Your task to perform on an android device: What's the weather today? Image 0: 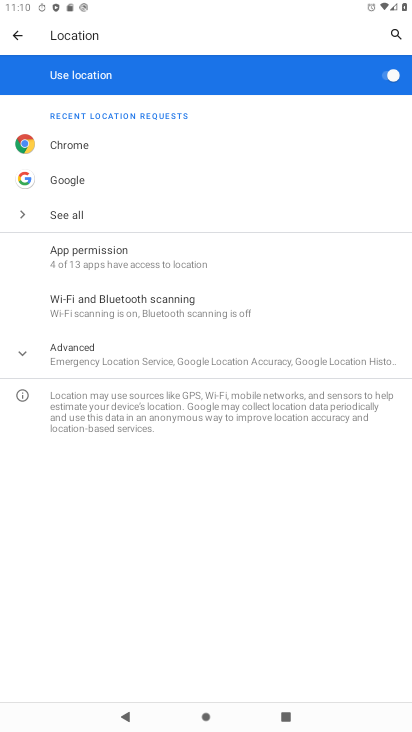
Step 0: press home button
Your task to perform on an android device: What's the weather today? Image 1: 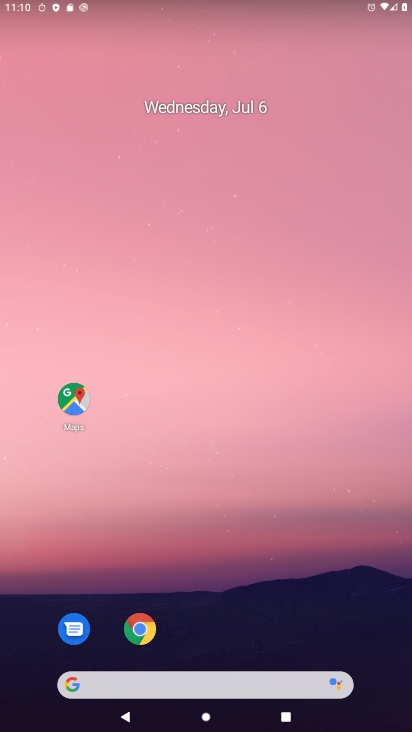
Step 1: drag from (195, 628) to (267, 177)
Your task to perform on an android device: What's the weather today? Image 2: 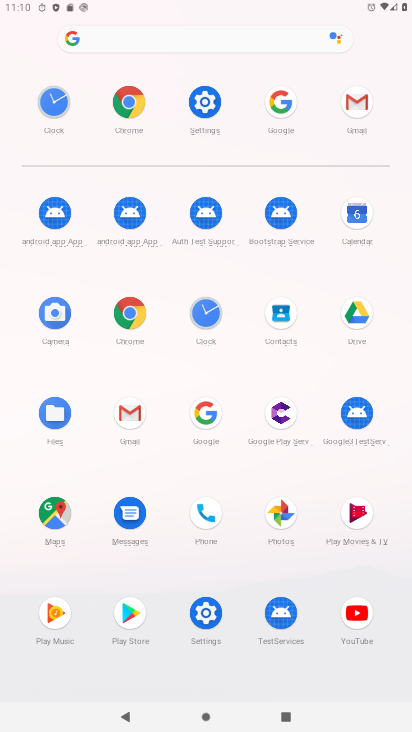
Step 2: click (204, 408)
Your task to perform on an android device: What's the weather today? Image 3: 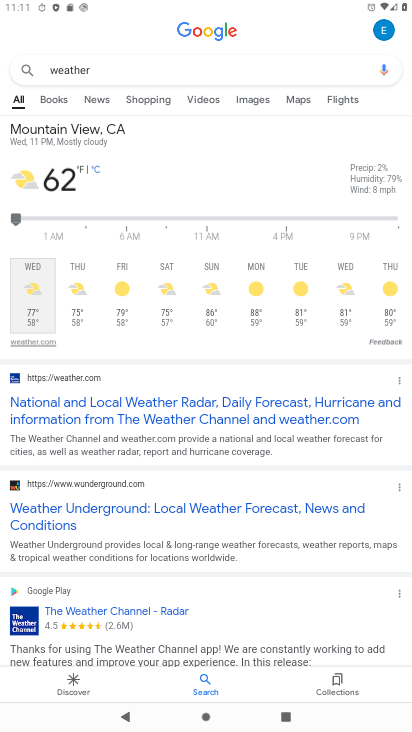
Step 3: task complete